Your task to perform on an android device: stop showing notifications on the lock screen Image 0: 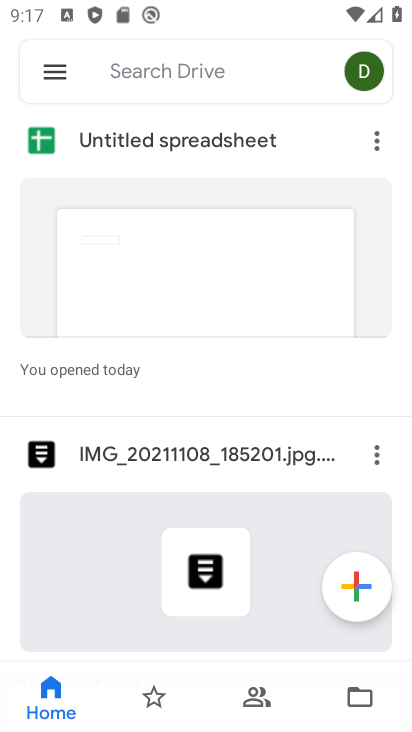
Step 0: press home button
Your task to perform on an android device: stop showing notifications on the lock screen Image 1: 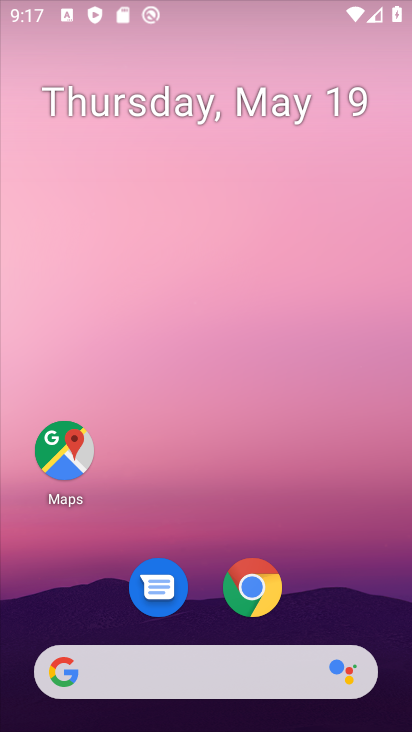
Step 1: drag from (395, 463) to (372, 8)
Your task to perform on an android device: stop showing notifications on the lock screen Image 2: 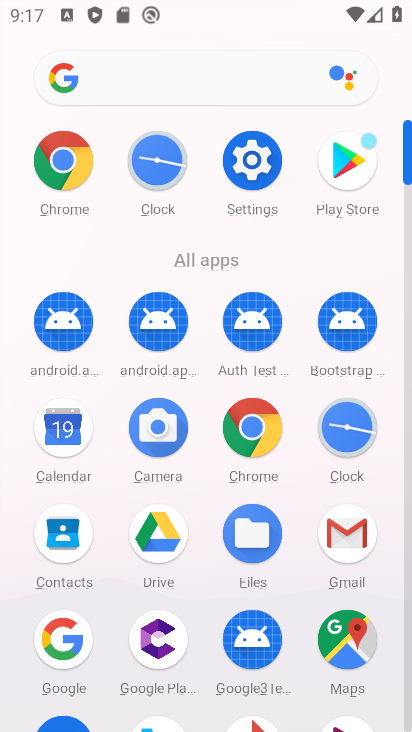
Step 2: click (268, 171)
Your task to perform on an android device: stop showing notifications on the lock screen Image 3: 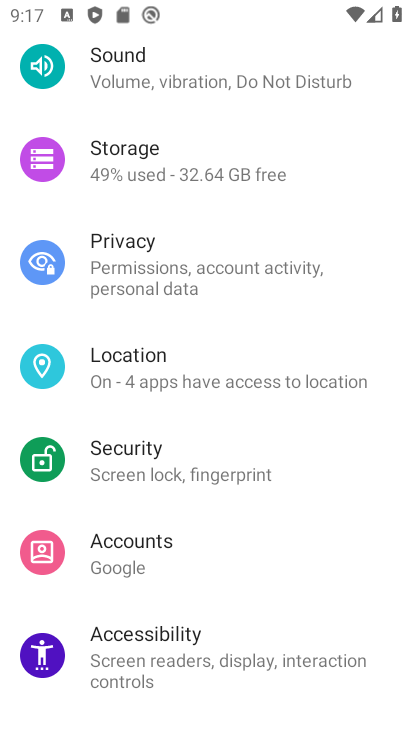
Step 3: drag from (264, 306) to (271, 647)
Your task to perform on an android device: stop showing notifications on the lock screen Image 4: 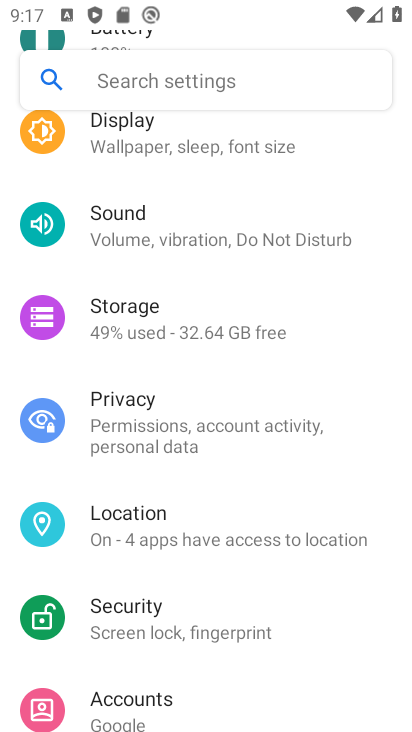
Step 4: drag from (323, 295) to (327, 635)
Your task to perform on an android device: stop showing notifications on the lock screen Image 5: 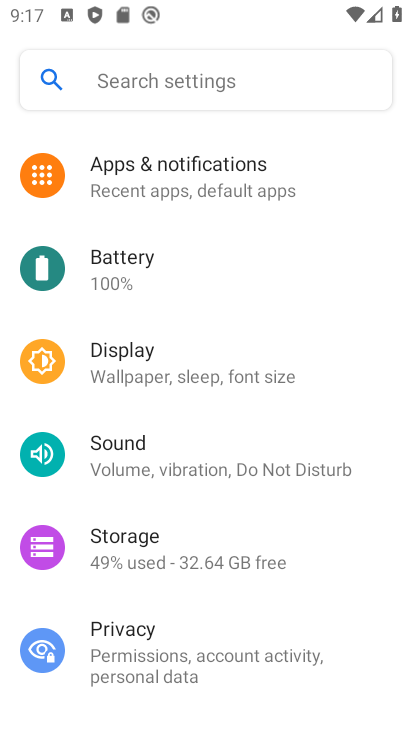
Step 5: click (216, 199)
Your task to perform on an android device: stop showing notifications on the lock screen Image 6: 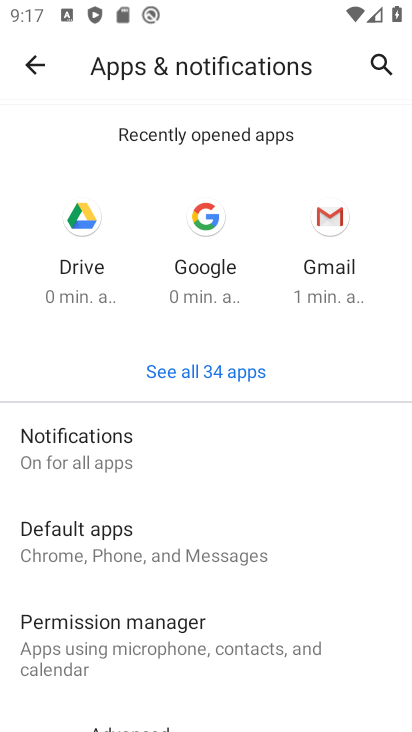
Step 6: click (57, 447)
Your task to perform on an android device: stop showing notifications on the lock screen Image 7: 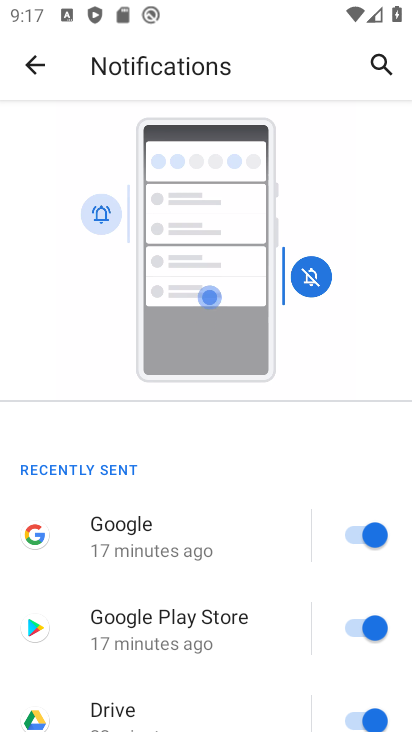
Step 7: drag from (129, 582) to (147, 76)
Your task to perform on an android device: stop showing notifications on the lock screen Image 8: 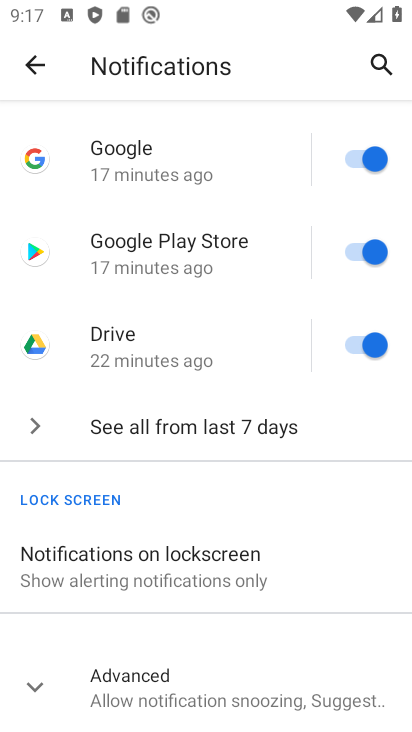
Step 8: drag from (163, 572) to (136, 324)
Your task to perform on an android device: stop showing notifications on the lock screen Image 9: 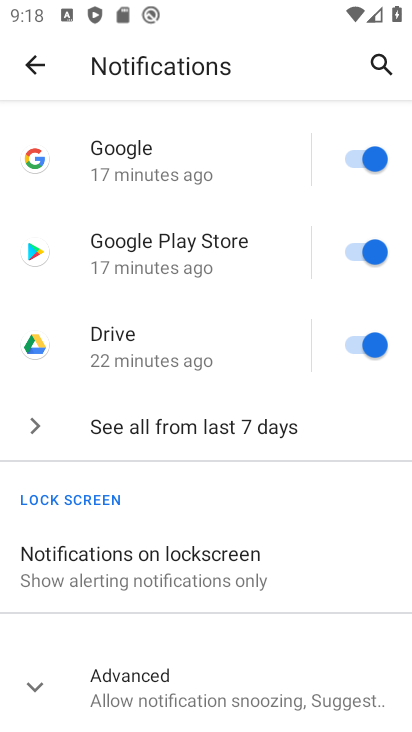
Step 9: click (157, 578)
Your task to perform on an android device: stop showing notifications on the lock screen Image 10: 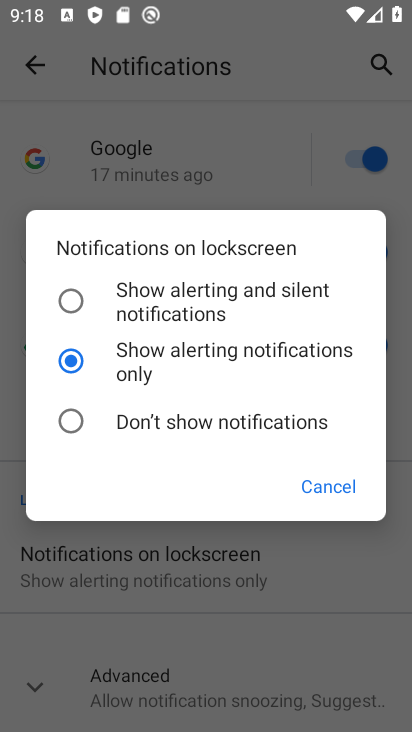
Step 10: click (77, 430)
Your task to perform on an android device: stop showing notifications on the lock screen Image 11: 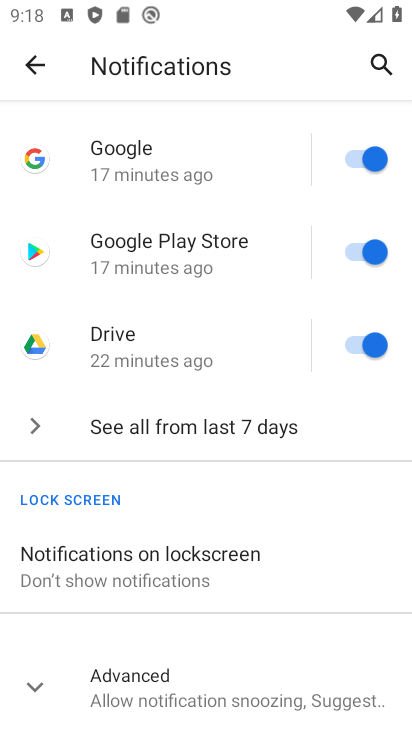
Step 11: task complete